Your task to perform on an android device: create a new album in the google photos Image 0: 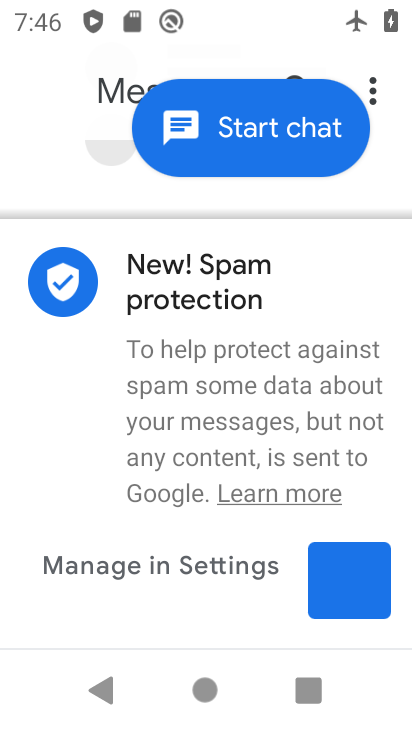
Step 0: press back button
Your task to perform on an android device: create a new album in the google photos Image 1: 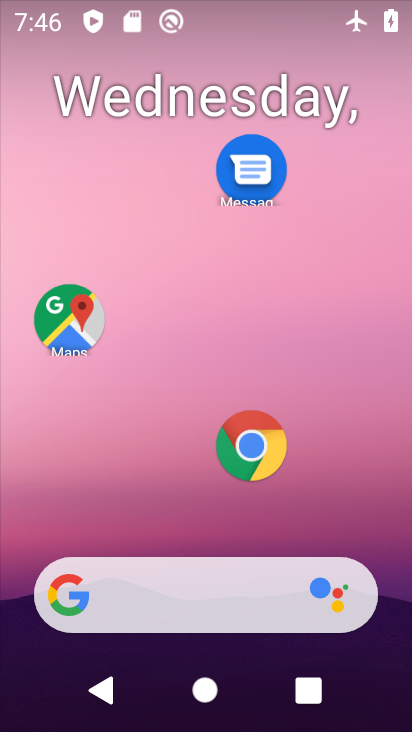
Step 1: drag from (267, 666) to (167, 72)
Your task to perform on an android device: create a new album in the google photos Image 2: 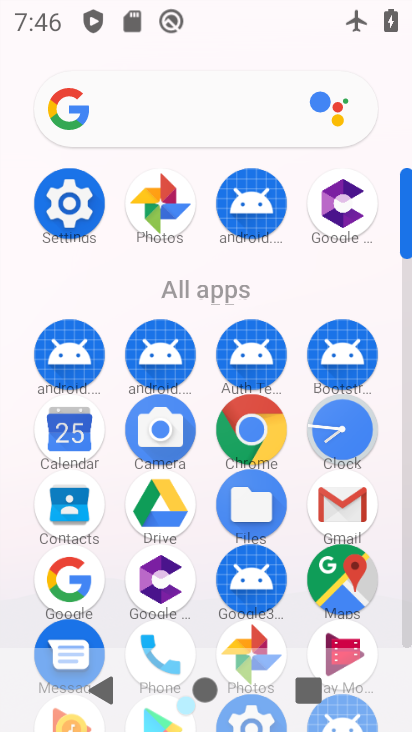
Step 2: drag from (337, 568) to (285, 55)
Your task to perform on an android device: create a new album in the google photos Image 3: 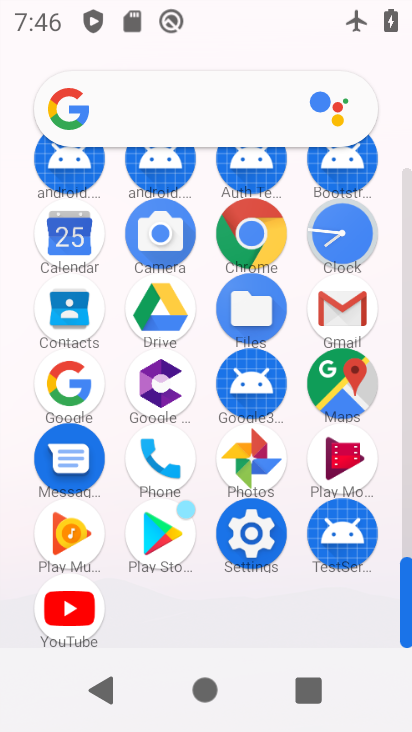
Step 3: click (242, 445)
Your task to perform on an android device: create a new album in the google photos Image 4: 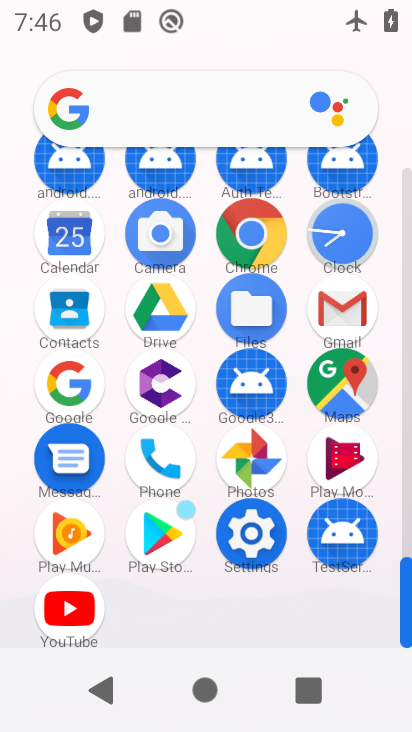
Step 4: click (244, 444)
Your task to perform on an android device: create a new album in the google photos Image 5: 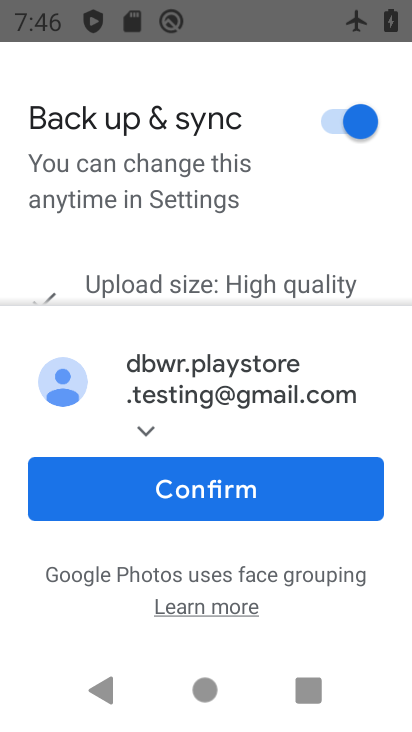
Step 5: click (221, 479)
Your task to perform on an android device: create a new album in the google photos Image 6: 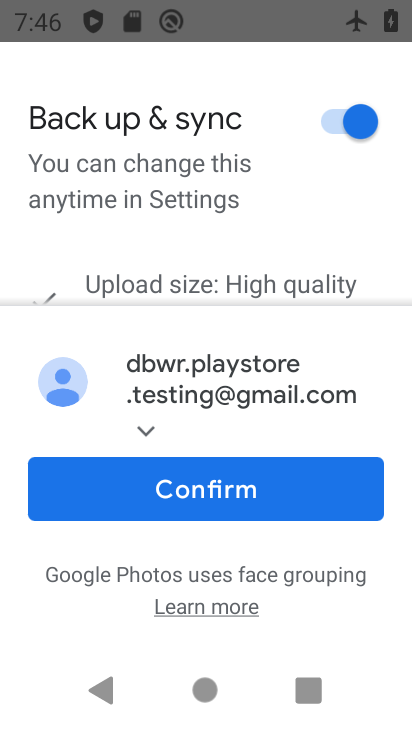
Step 6: click (221, 479)
Your task to perform on an android device: create a new album in the google photos Image 7: 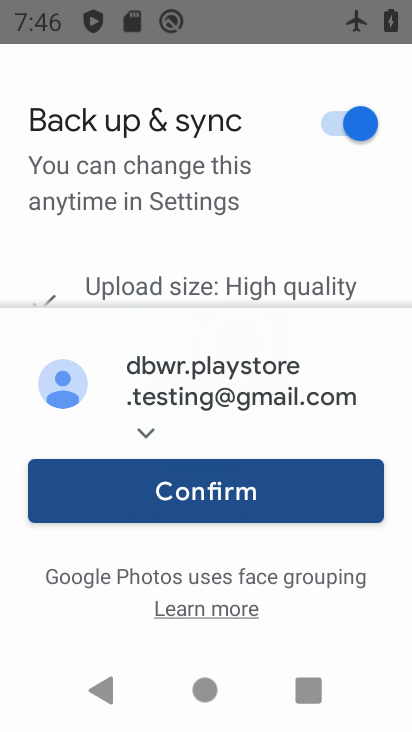
Step 7: click (220, 480)
Your task to perform on an android device: create a new album in the google photos Image 8: 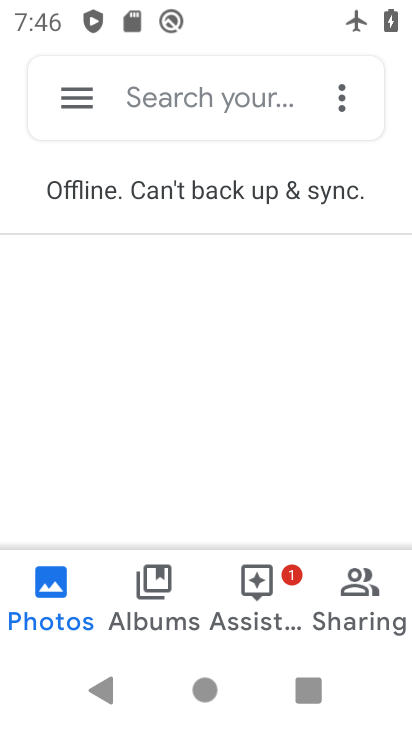
Step 8: task complete